Your task to perform on an android device: Open privacy settings Image 0: 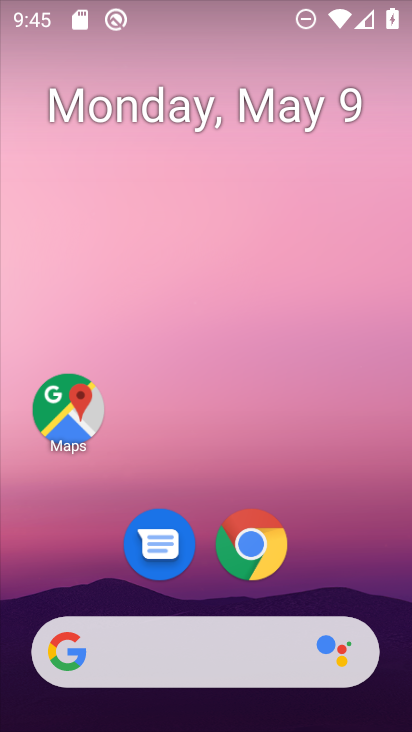
Step 0: drag from (335, 559) to (228, 87)
Your task to perform on an android device: Open privacy settings Image 1: 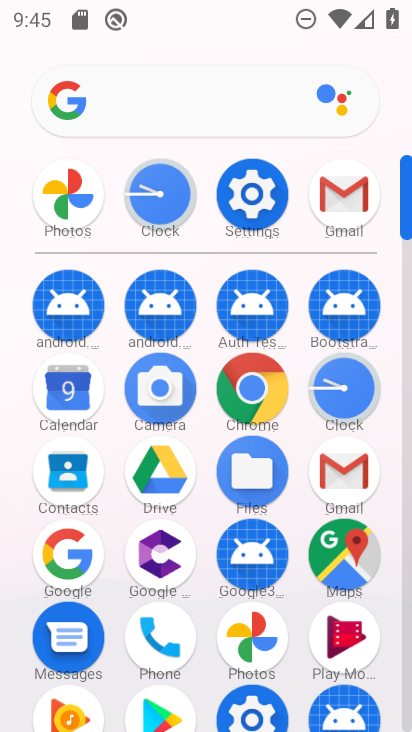
Step 1: click (253, 198)
Your task to perform on an android device: Open privacy settings Image 2: 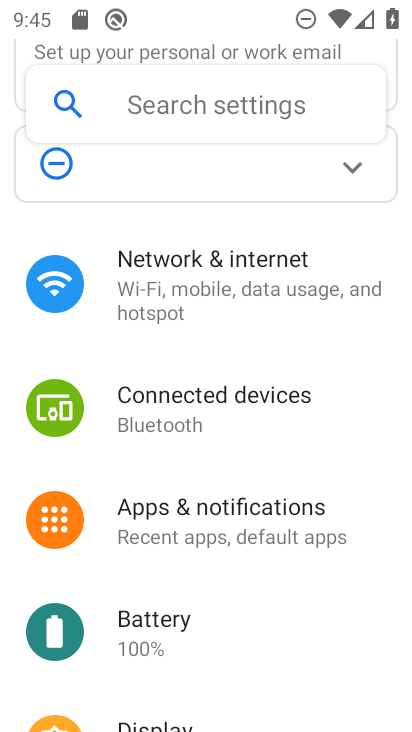
Step 2: drag from (208, 565) to (180, 281)
Your task to perform on an android device: Open privacy settings Image 3: 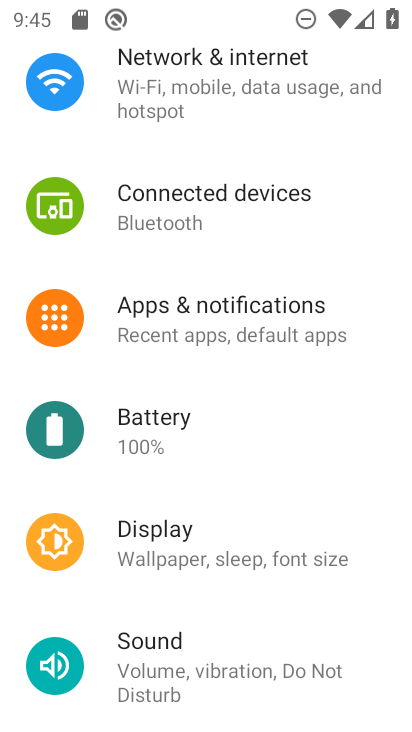
Step 3: drag from (192, 602) to (155, 309)
Your task to perform on an android device: Open privacy settings Image 4: 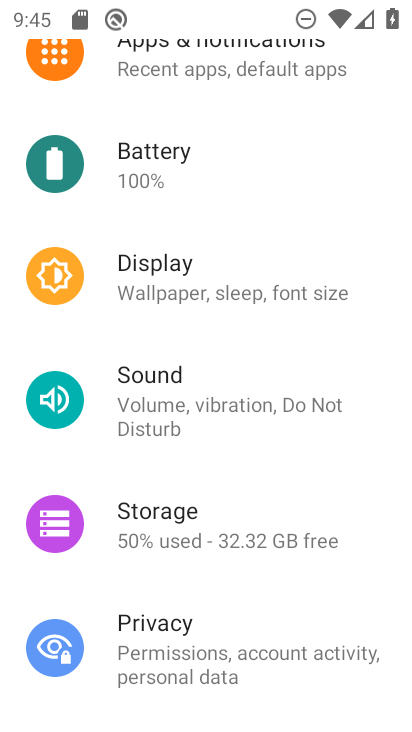
Step 4: click (152, 626)
Your task to perform on an android device: Open privacy settings Image 5: 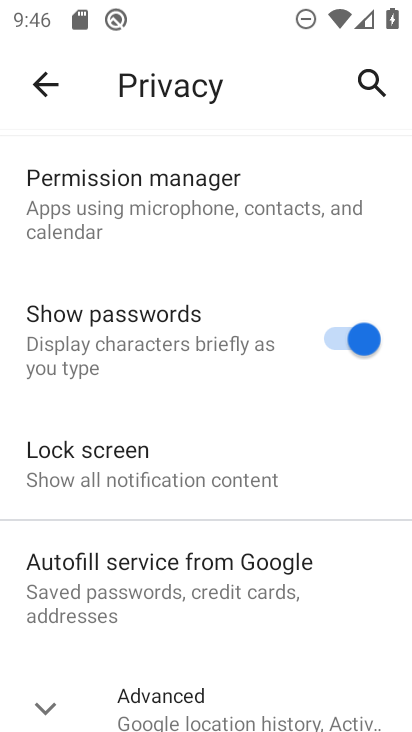
Step 5: task complete